Your task to perform on an android device: empty trash in the gmail app Image 0: 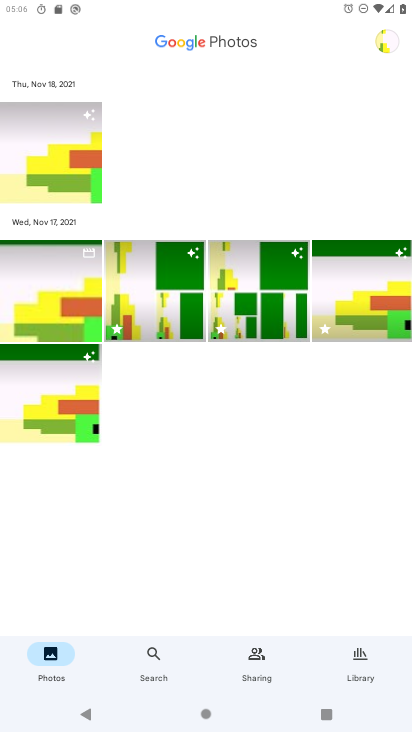
Step 0: press home button
Your task to perform on an android device: empty trash in the gmail app Image 1: 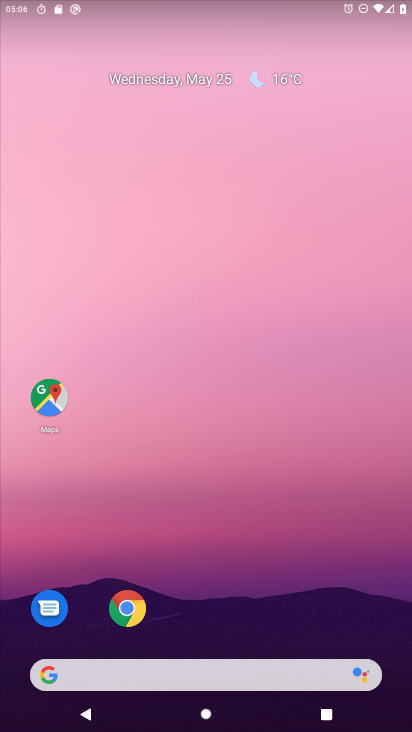
Step 1: drag from (217, 611) to (283, 170)
Your task to perform on an android device: empty trash in the gmail app Image 2: 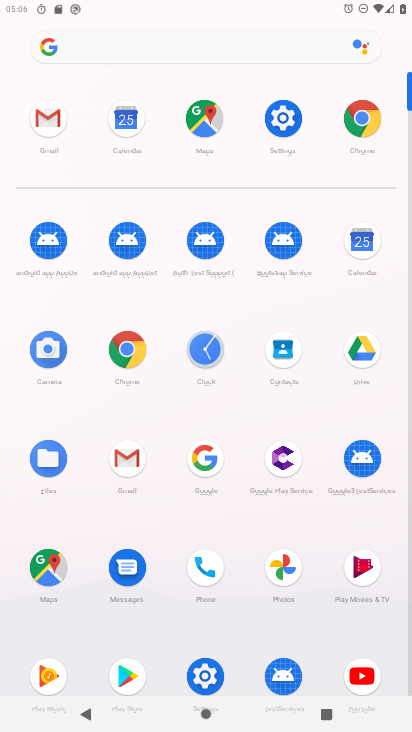
Step 2: click (52, 116)
Your task to perform on an android device: empty trash in the gmail app Image 3: 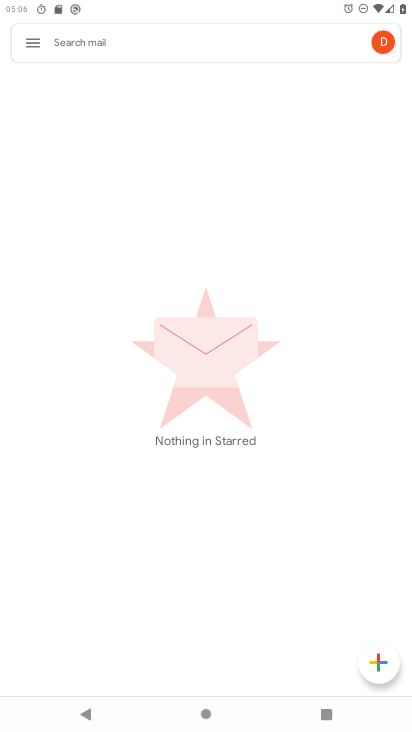
Step 3: click (36, 51)
Your task to perform on an android device: empty trash in the gmail app Image 4: 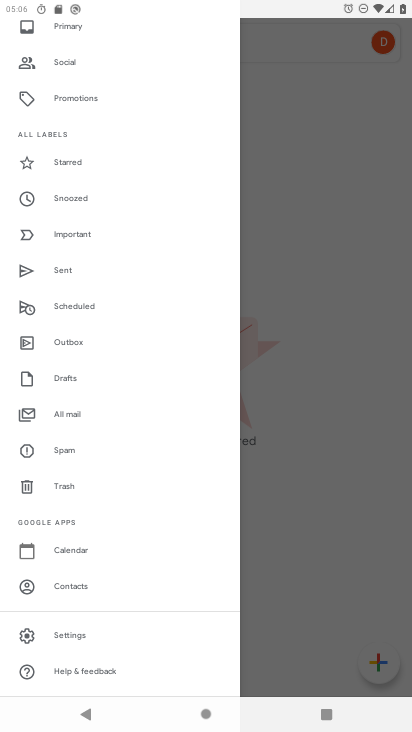
Step 4: click (71, 487)
Your task to perform on an android device: empty trash in the gmail app Image 5: 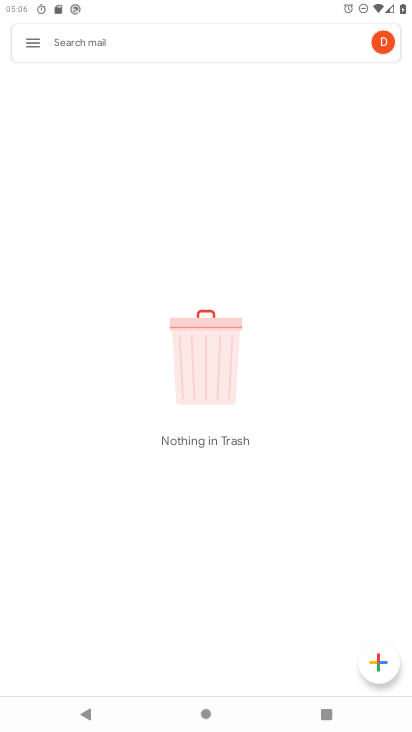
Step 5: task complete